Your task to perform on an android device: Go to ESPN.com Image 0: 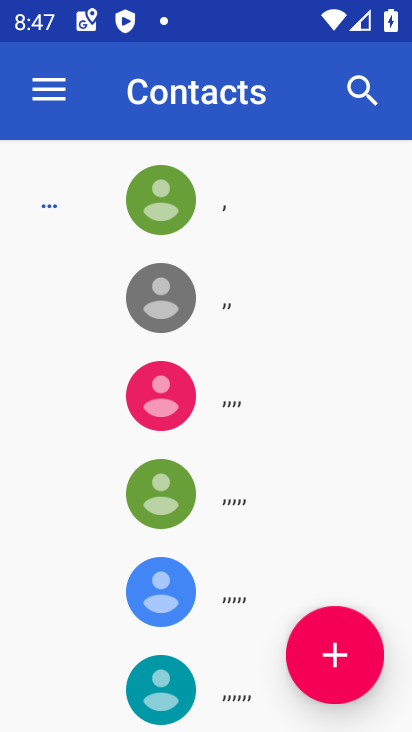
Step 0: press home button
Your task to perform on an android device: Go to ESPN.com Image 1: 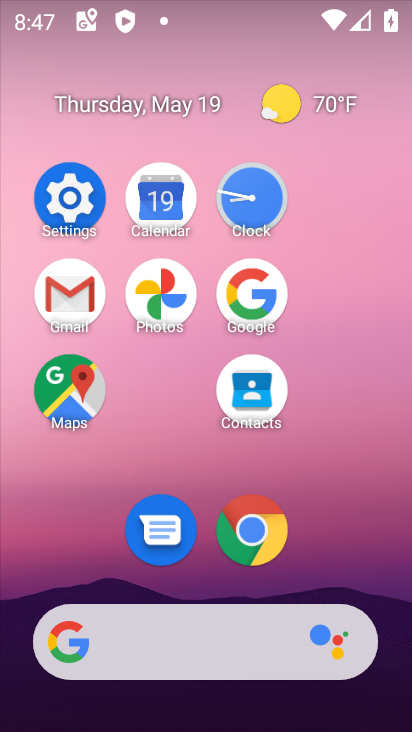
Step 1: click (261, 558)
Your task to perform on an android device: Go to ESPN.com Image 2: 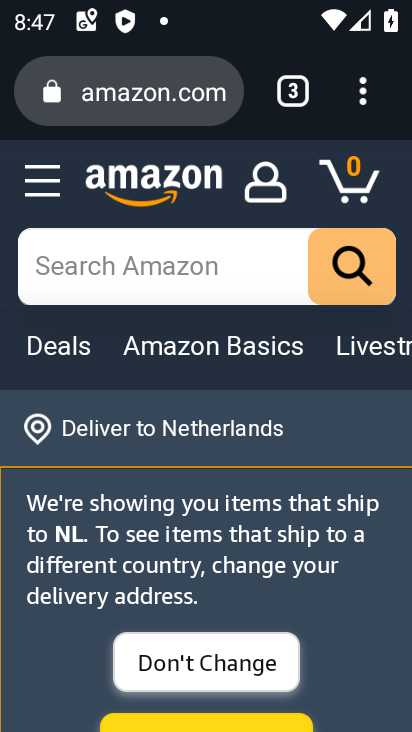
Step 2: click (301, 85)
Your task to perform on an android device: Go to ESPN.com Image 3: 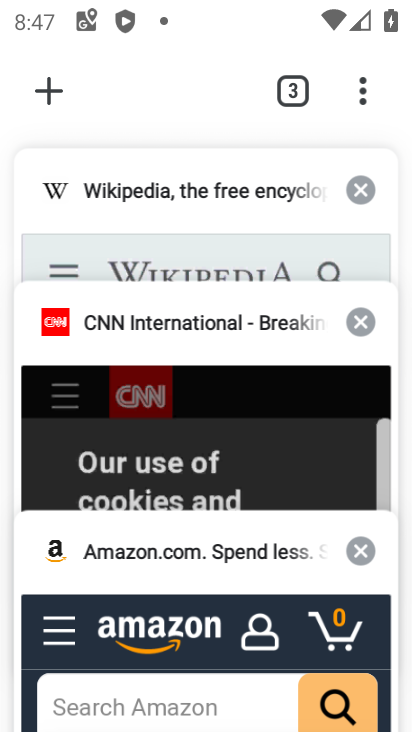
Step 3: click (49, 97)
Your task to perform on an android device: Go to ESPN.com Image 4: 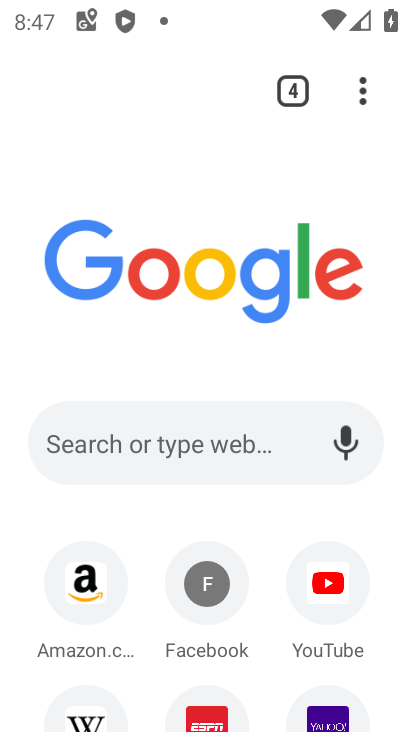
Step 4: click (215, 703)
Your task to perform on an android device: Go to ESPN.com Image 5: 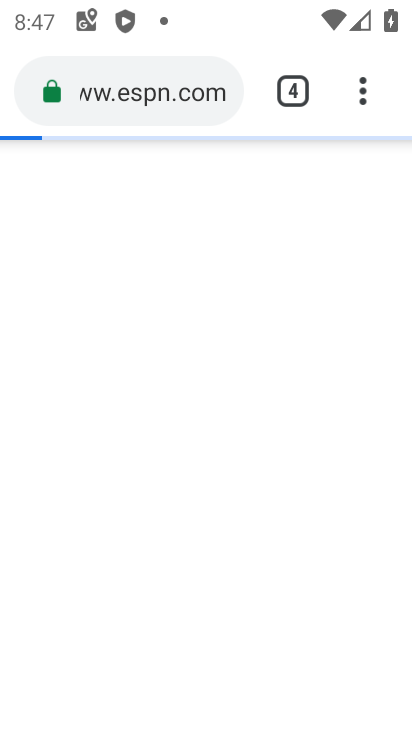
Step 5: task complete